Your task to perform on an android device: empty trash in the gmail app Image 0: 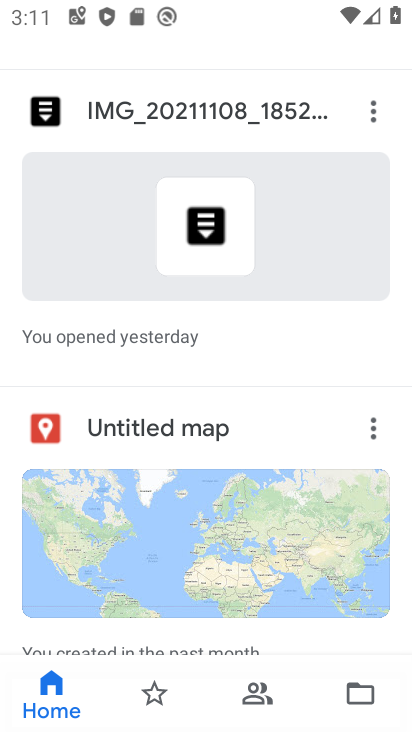
Step 0: press home button
Your task to perform on an android device: empty trash in the gmail app Image 1: 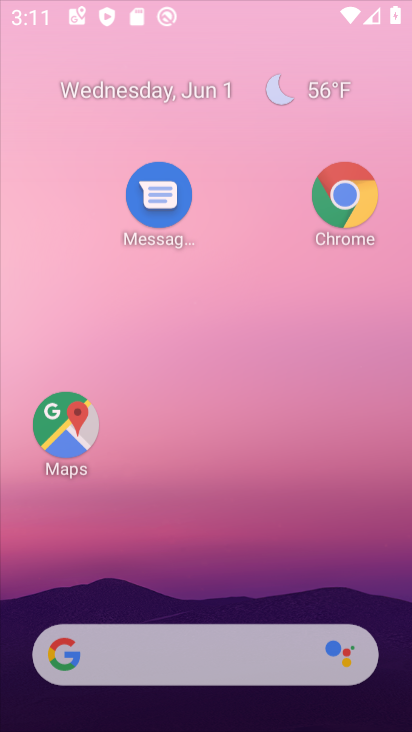
Step 1: drag from (233, 547) to (306, 133)
Your task to perform on an android device: empty trash in the gmail app Image 2: 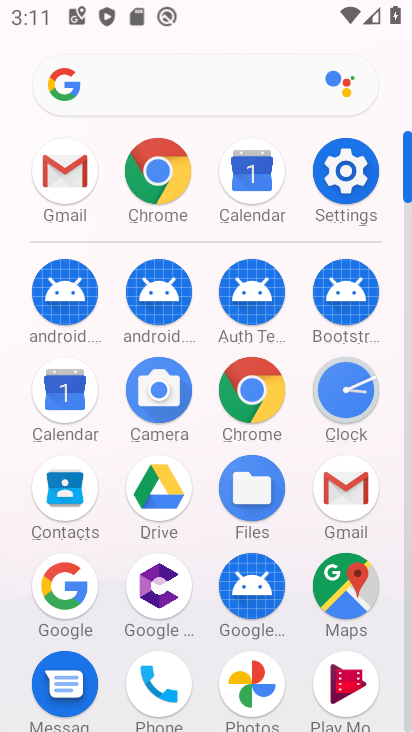
Step 2: drag from (192, 530) to (214, 173)
Your task to perform on an android device: empty trash in the gmail app Image 3: 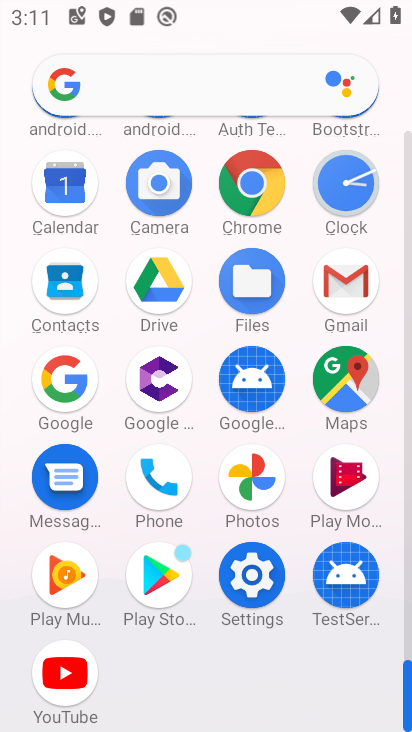
Step 3: click (347, 273)
Your task to perform on an android device: empty trash in the gmail app Image 4: 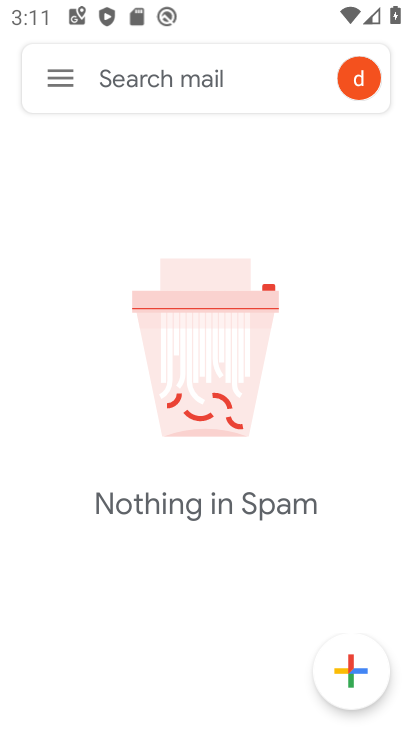
Step 4: click (55, 77)
Your task to perform on an android device: empty trash in the gmail app Image 5: 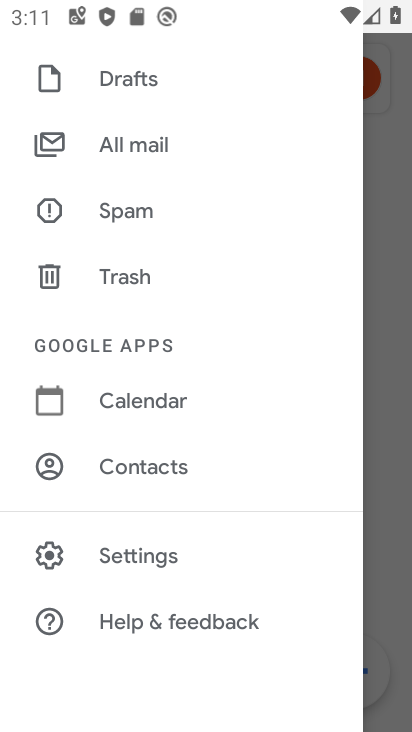
Step 5: click (124, 279)
Your task to perform on an android device: empty trash in the gmail app Image 6: 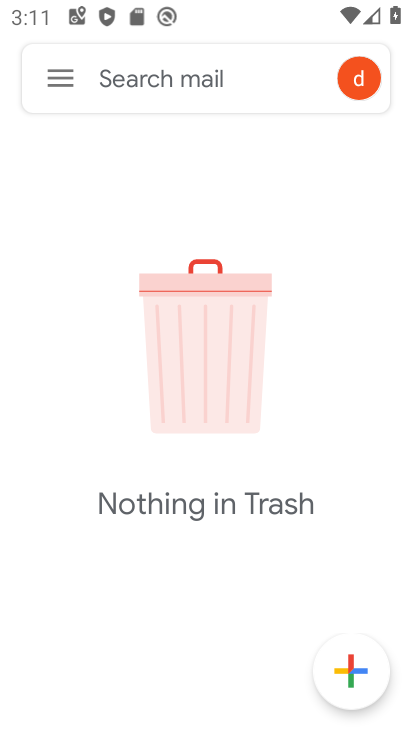
Step 6: task complete